Your task to perform on an android device: Open maps Image 0: 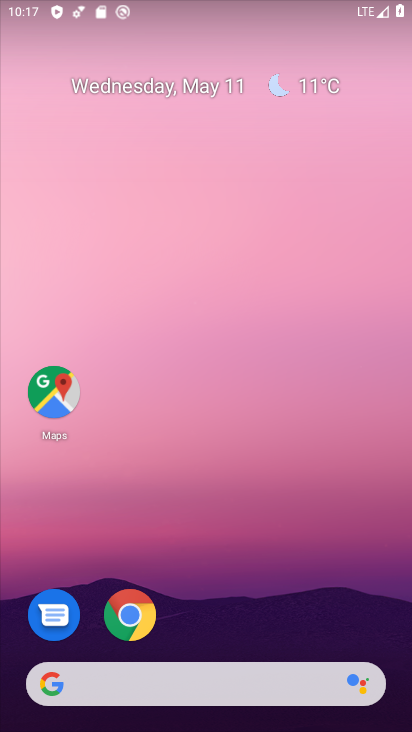
Step 0: click (42, 397)
Your task to perform on an android device: Open maps Image 1: 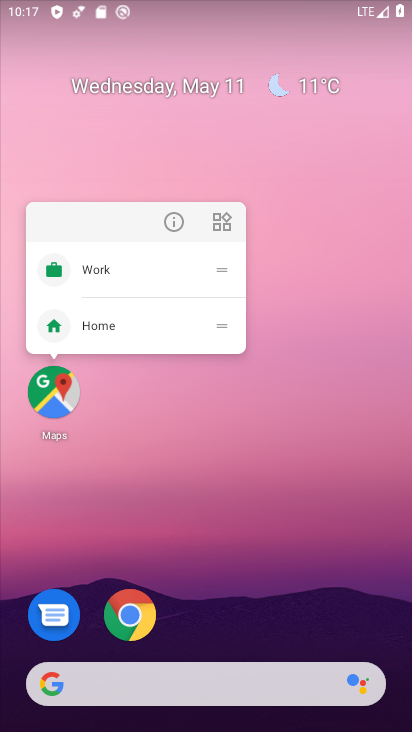
Step 1: click (63, 402)
Your task to perform on an android device: Open maps Image 2: 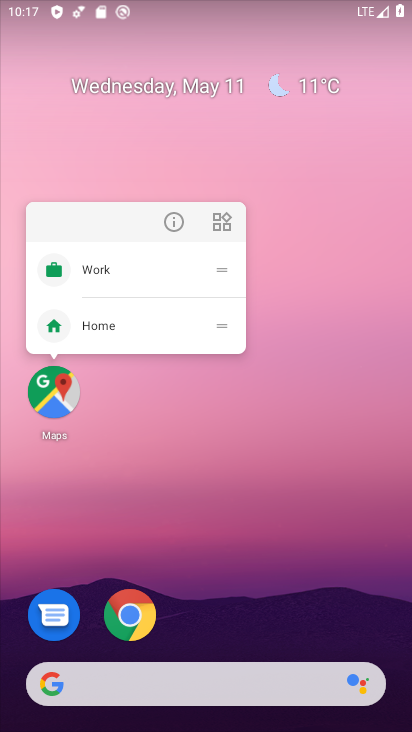
Step 2: click (48, 391)
Your task to perform on an android device: Open maps Image 3: 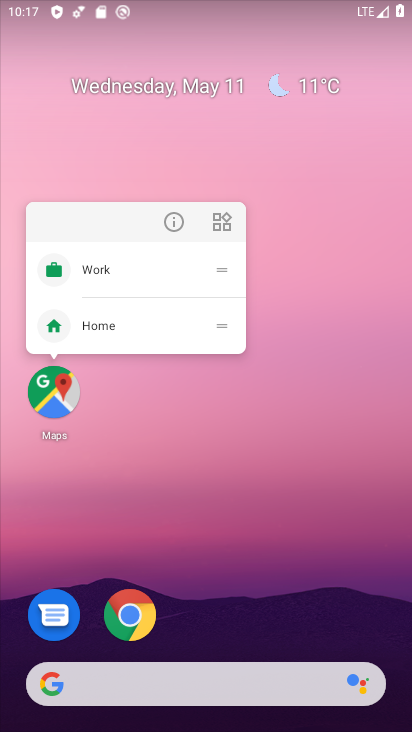
Step 3: click (48, 395)
Your task to perform on an android device: Open maps Image 4: 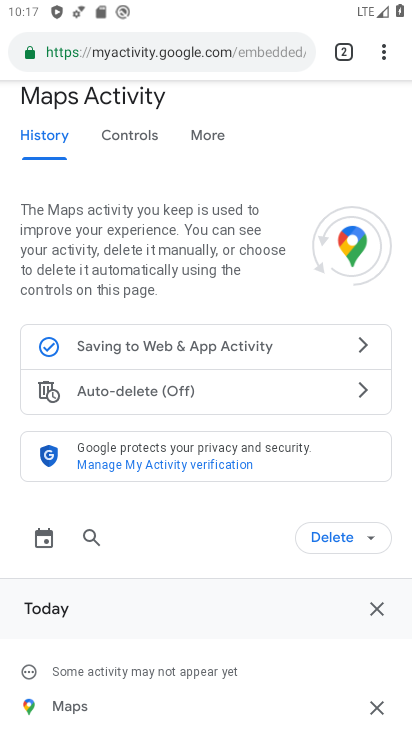
Step 4: task complete